Your task to perform on an android device: snooze an email in the gmail app Image 0: 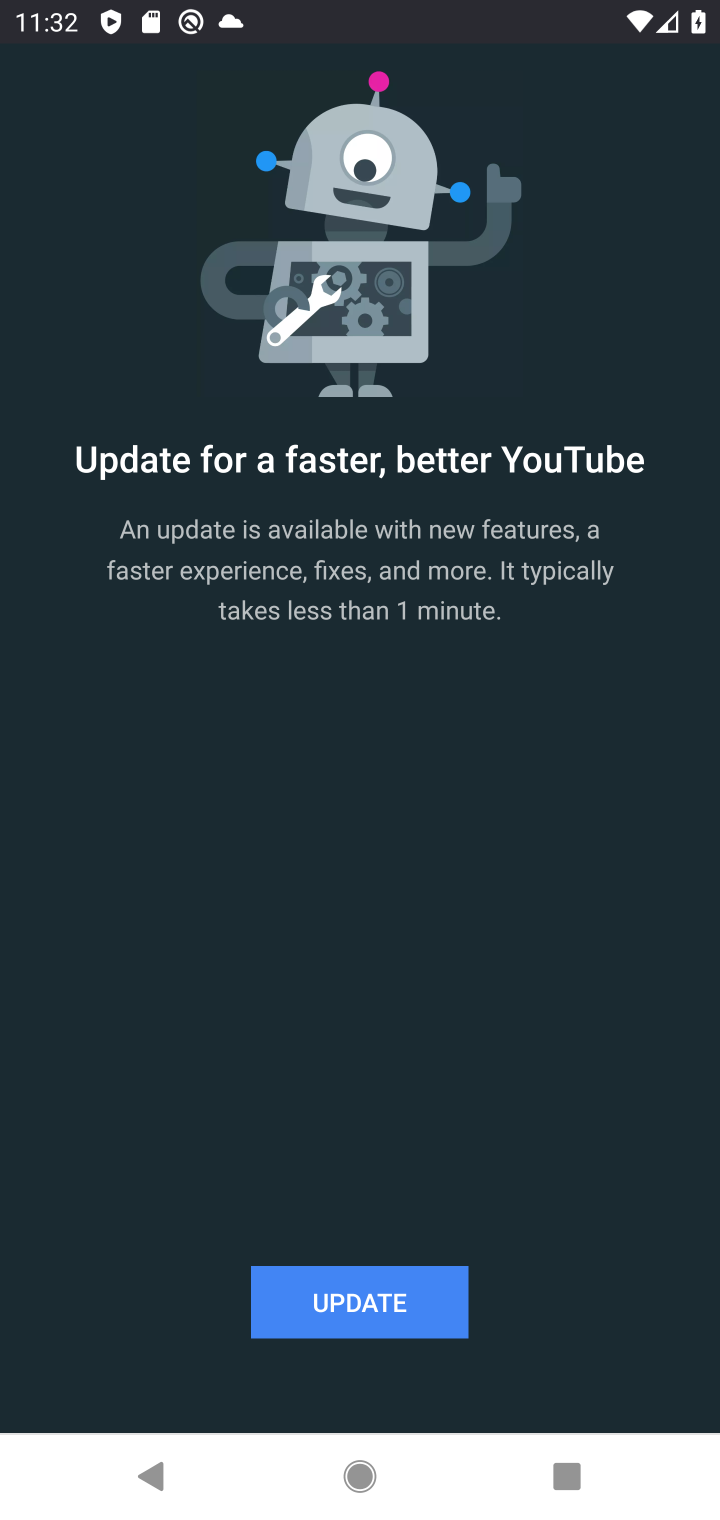
Step 0: press home button
Your task to perform on an android device: snooze an email in the gmail app Image 1: 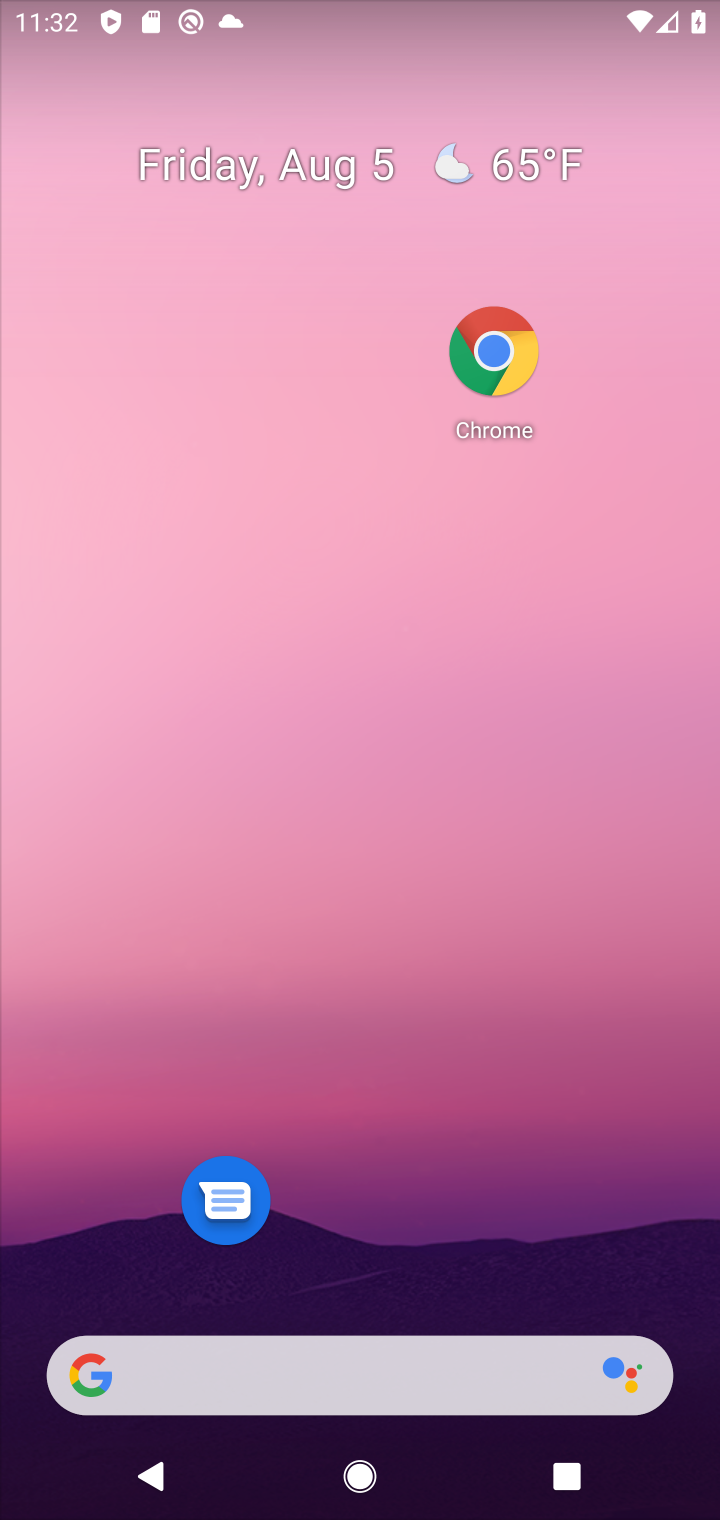
Step 1: drag from (307, 1267) to (234, 393)
Your task to perform on an android device: snooze an email in the gmail app Image 2: 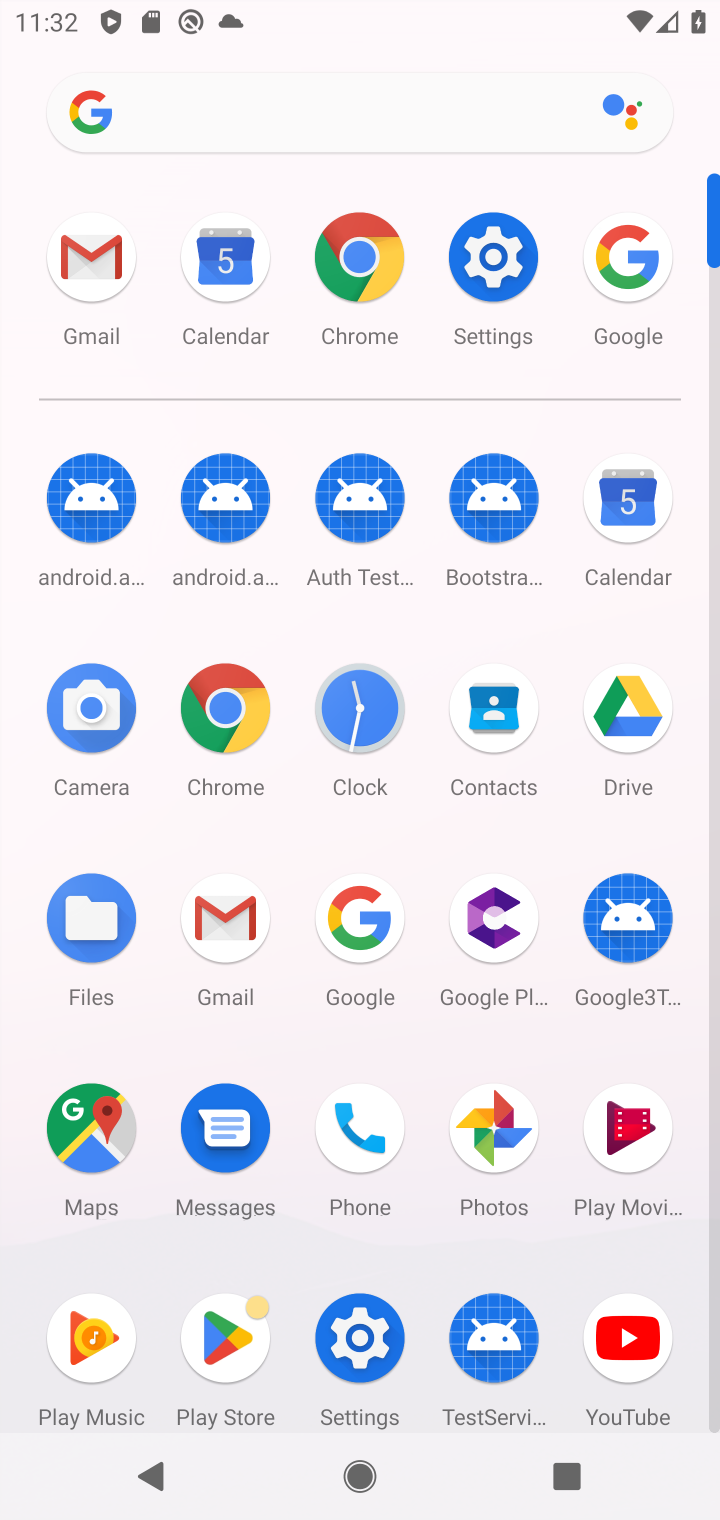
Step 2: click (260, 917)
Your task to perform on an android device: snooze an email in the gmail app Image 3: 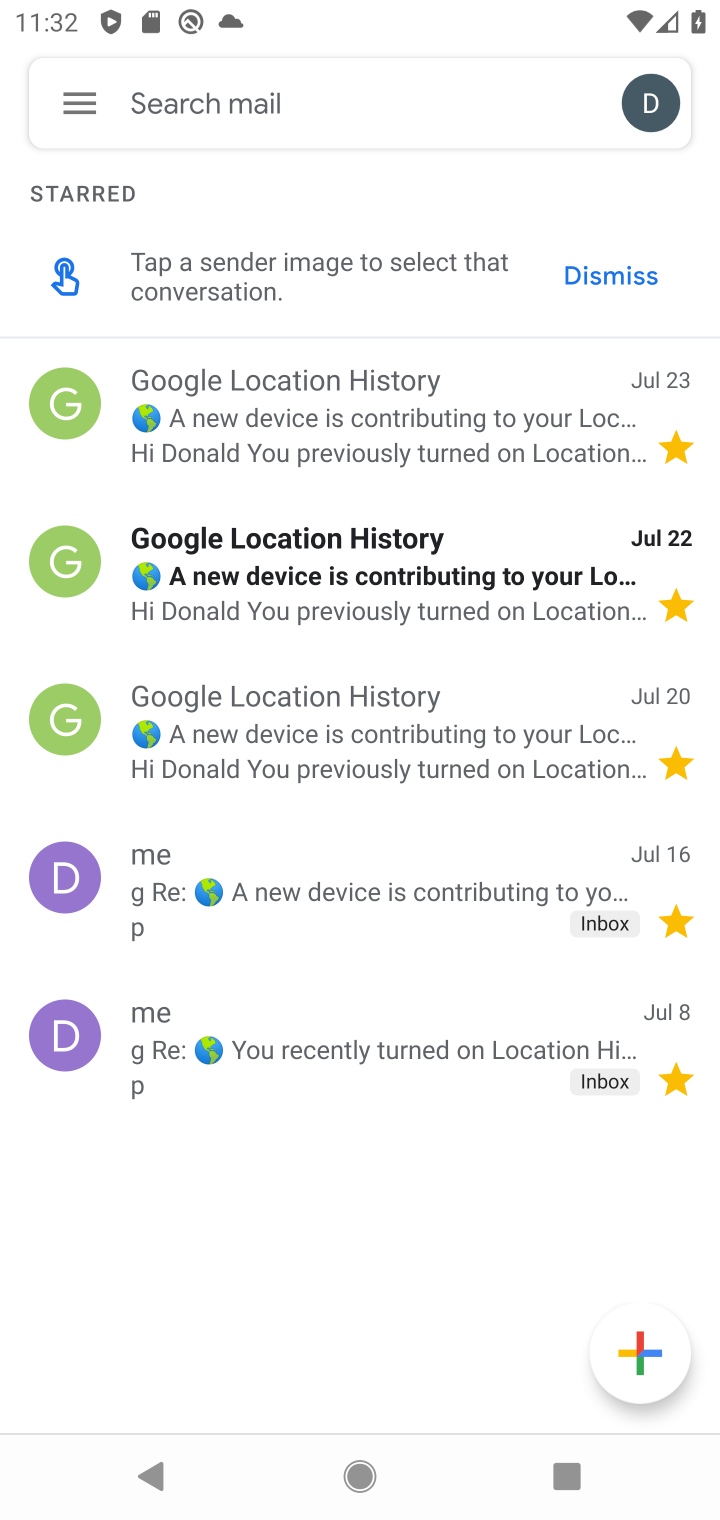
Step 3: click (92, 111)
Your task to perform on an android device: snooze an email in the gmail app Image 4: 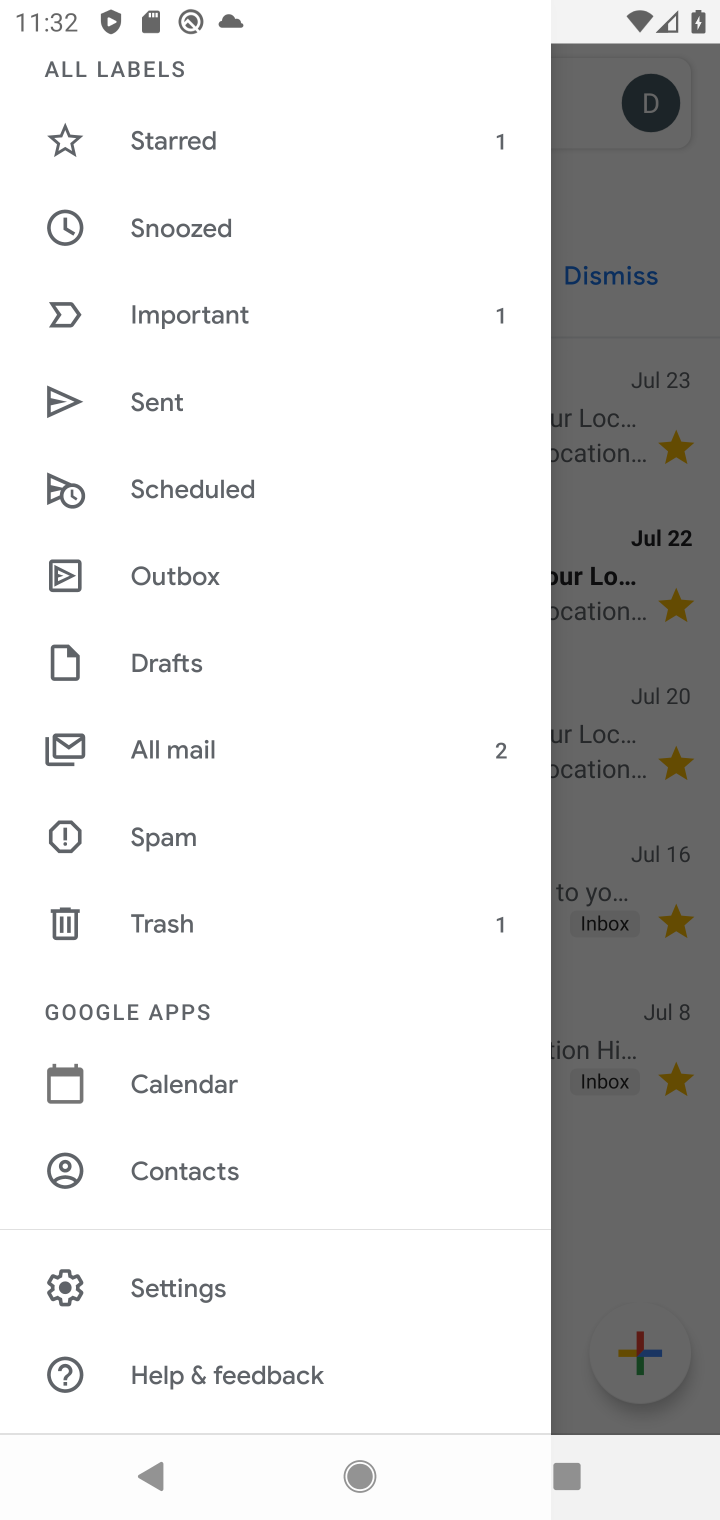
Step 4: click (227, 748)
Your task to perform on an android device: snooze an email in the gmail app Image 5: 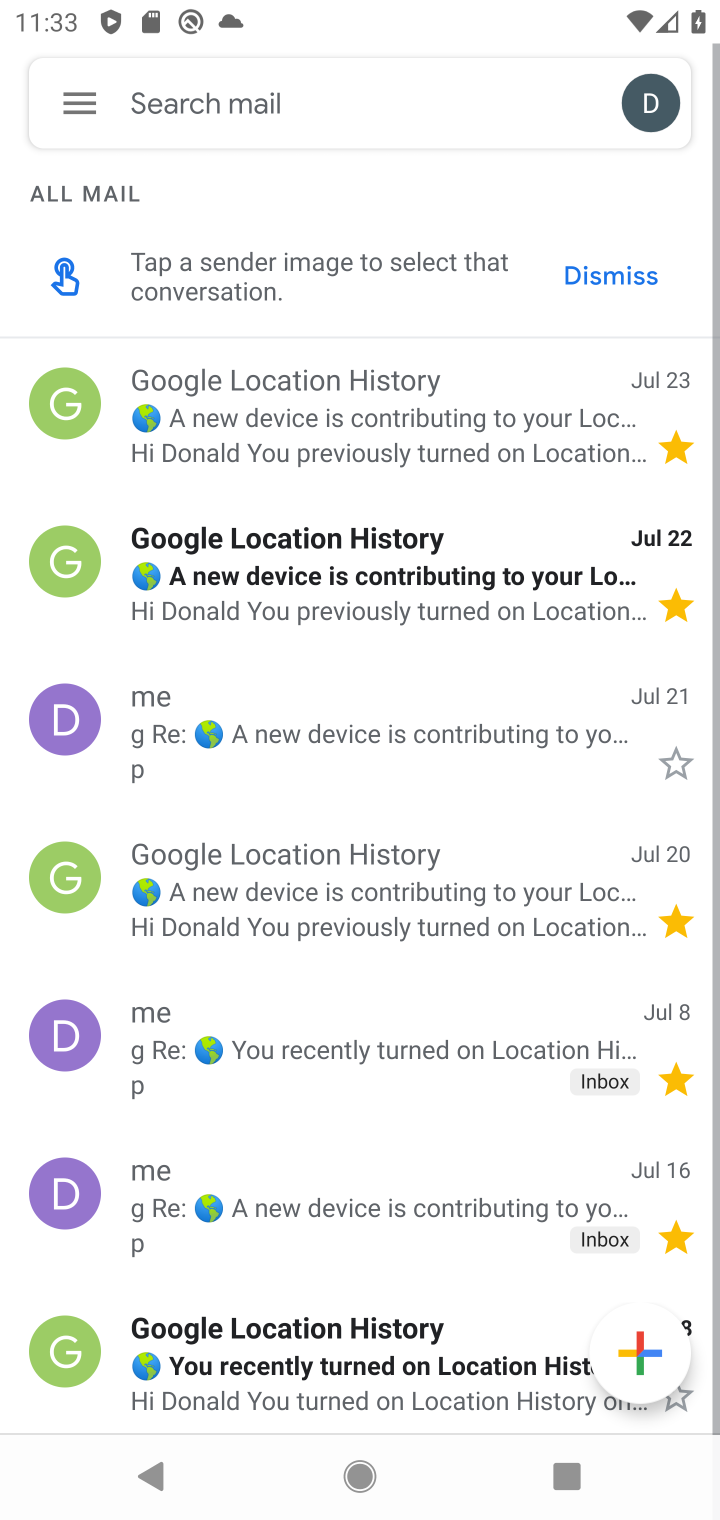
Step 5: click (280, 408)
Your task to perform on an android device: snooze an email in the gmail app Image 6: 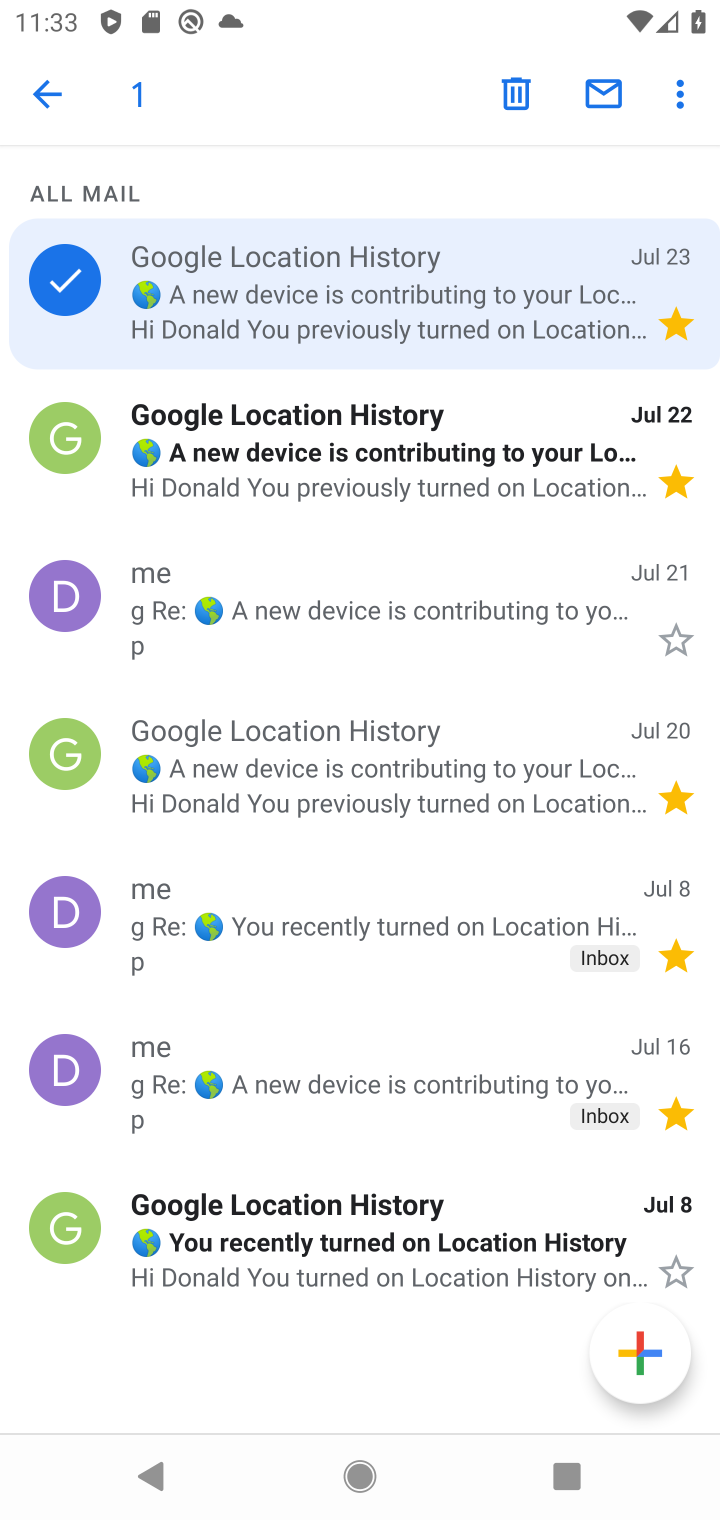
Step 6: click (339, 311)
Your task to perform on an android device: snooze an email in the gmail app Image 7: 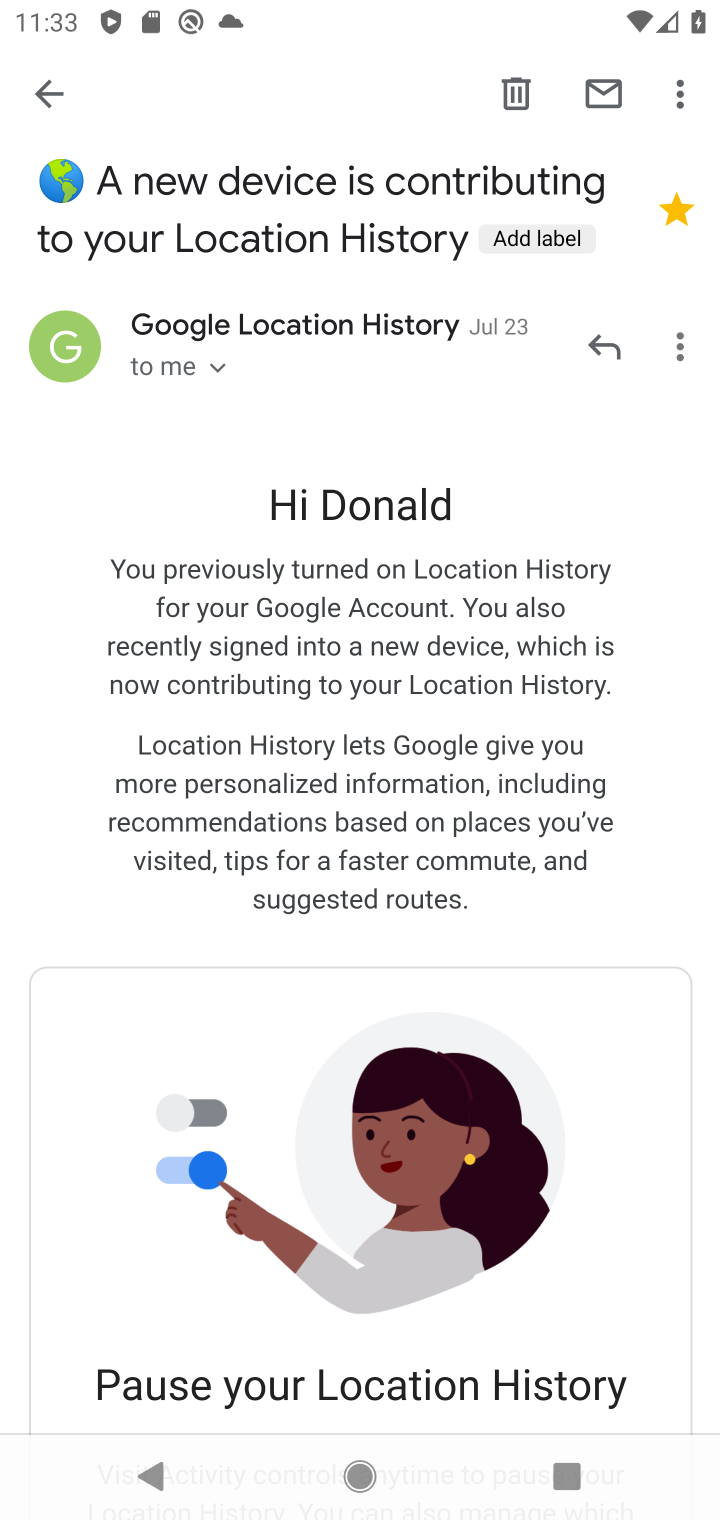
Step 7: click (679, 99)
Your task to perform on an android device: snooze an email in the gmail app Image 8: 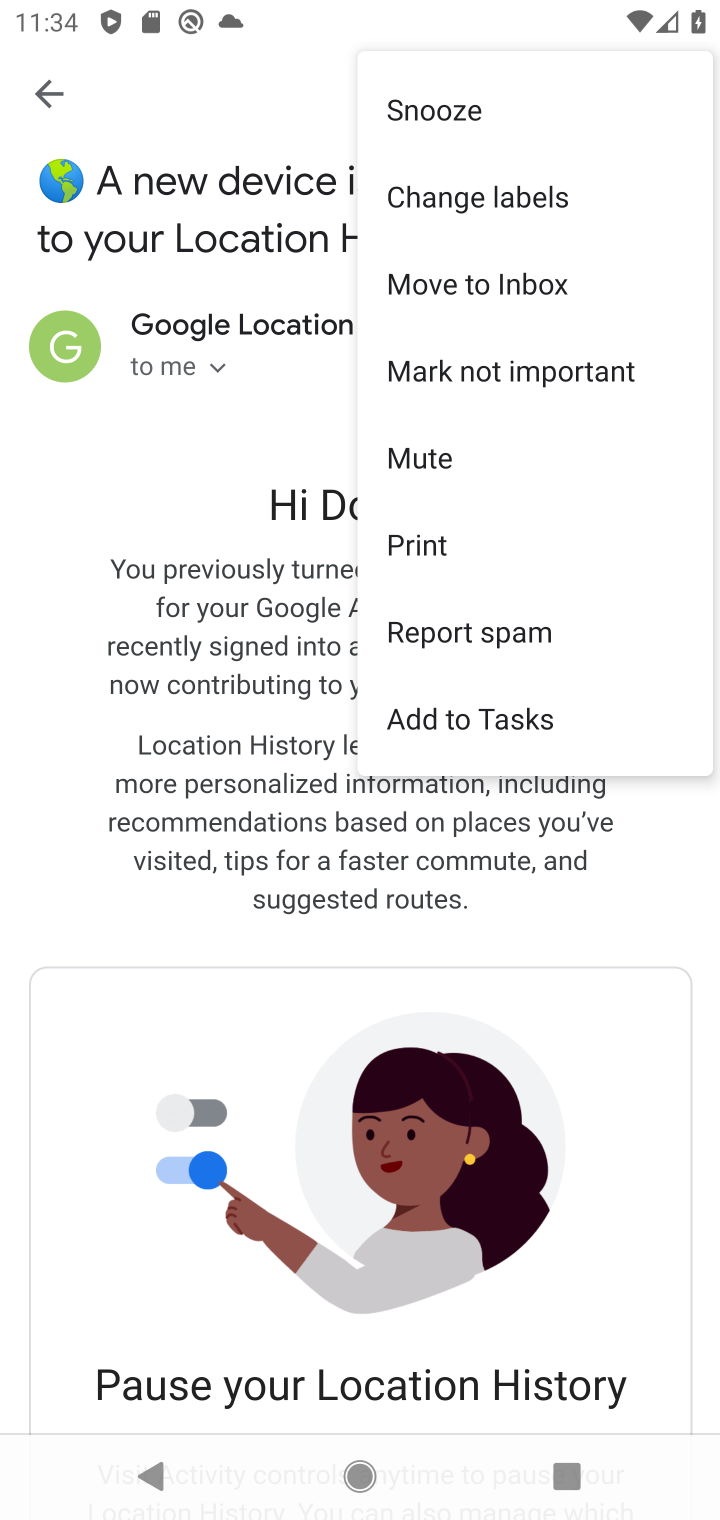
Step 8: click (433, 121)
Your task to perform on an android device: snooze an email in the gmail app Image 9: 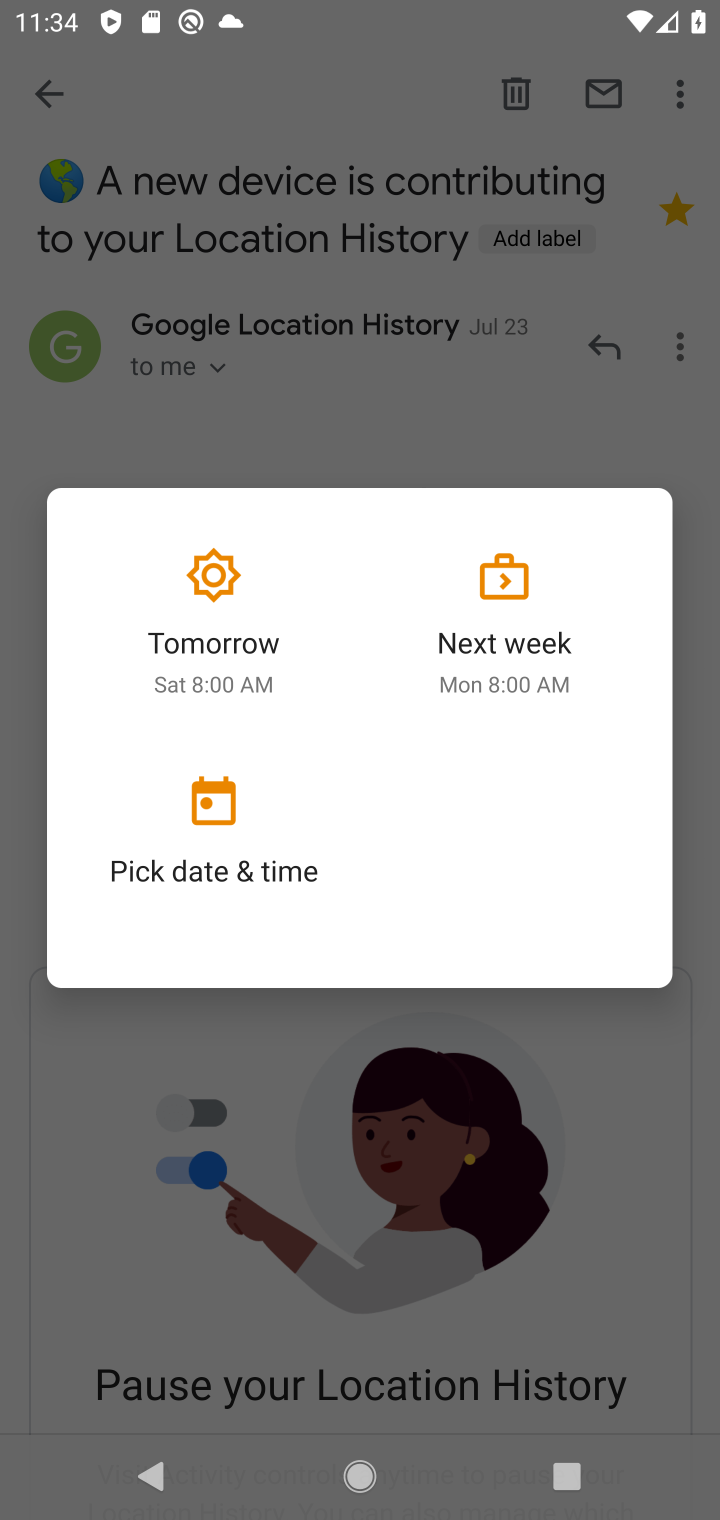
Step 9: click (535, 613)
Your task to perform on an android device: snooze an email in the gmail app Image 10: 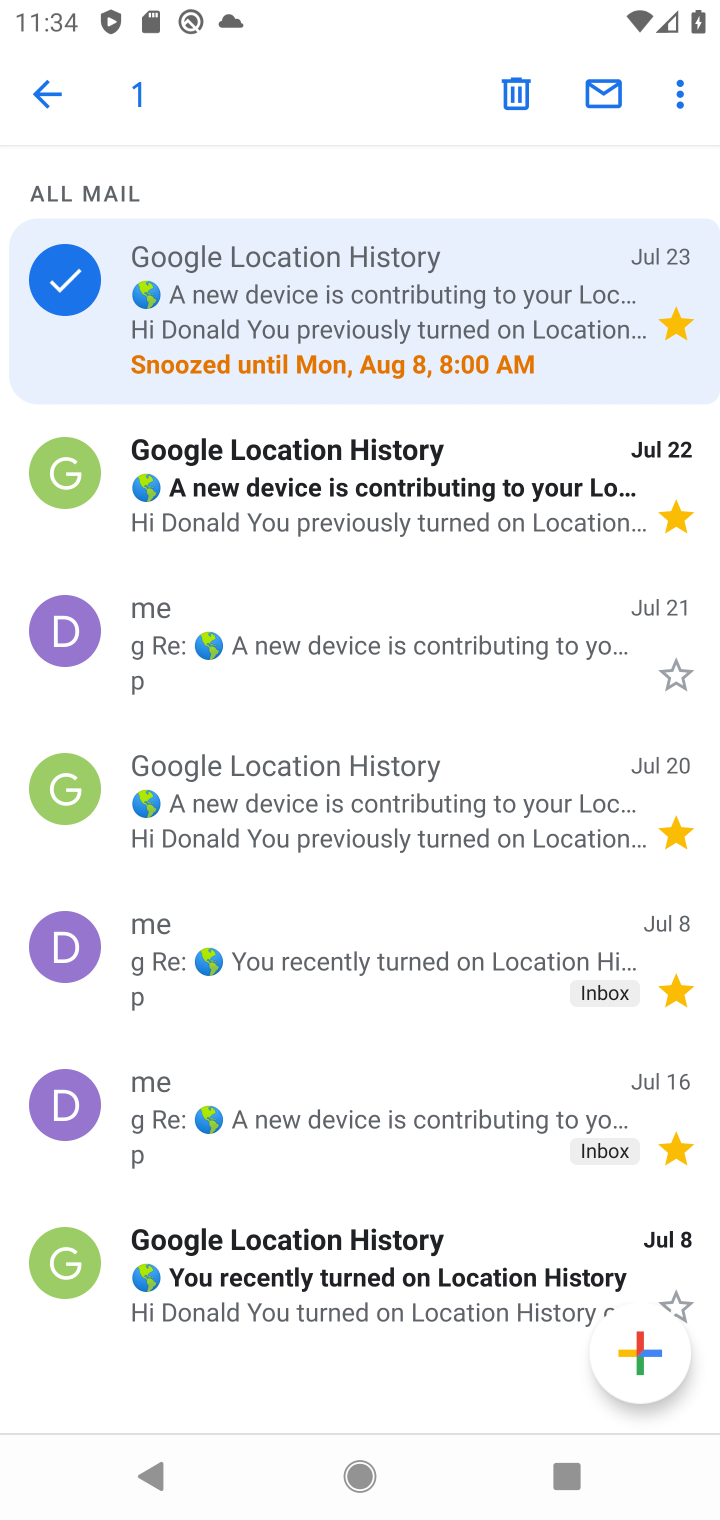
Step 10: task complete